Your task to perform on an android device: remove spam from my inbox in the gmail app Image 0: 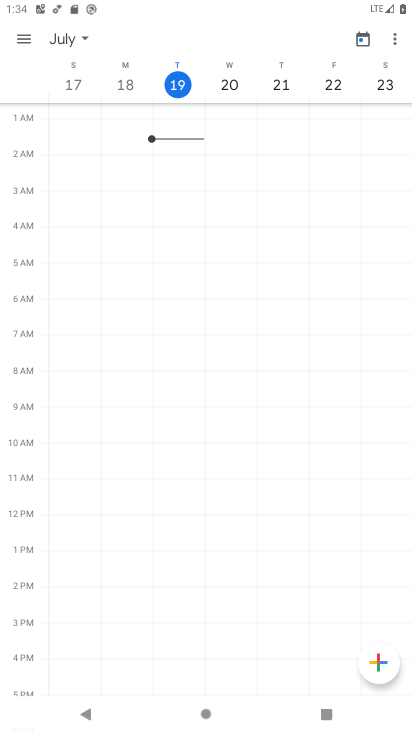
Step 0: press home button
Your task to perform on an android device: remove spam from my inbox in the gmail app Image 1: 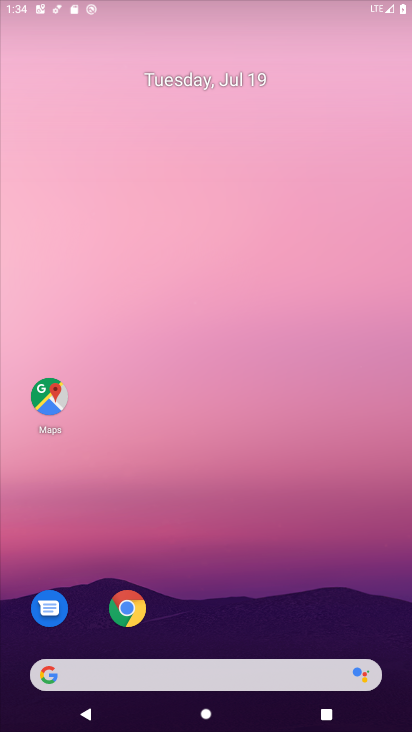
Step 1: drag from (264, 636) to (231, 103)
Your task to perform on an android device: remove spam from my inbox in the gmail app Image 2: 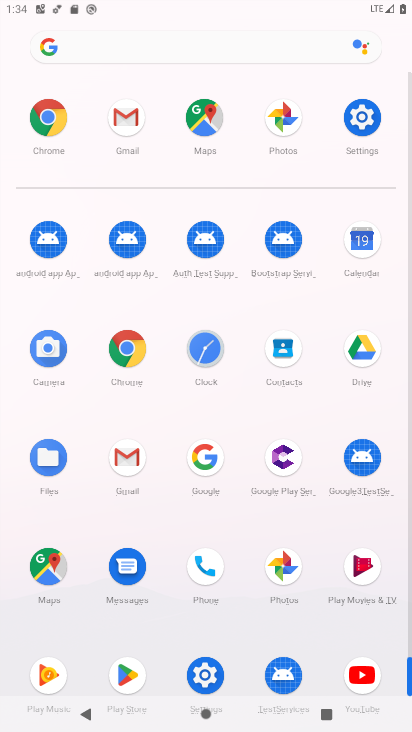
Step 2: click (130, 464)
Your task to perform on an android device: remove spam from my inbox in the gmail app Image 3: 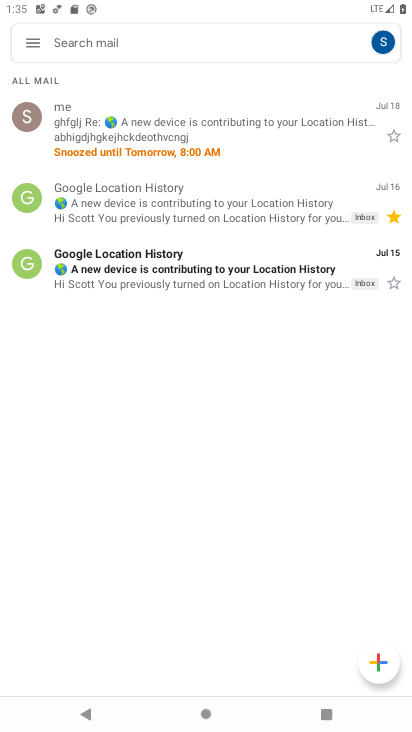
Step 3: click (37, 46)
Your task to perform on an android device: remove spam from my inbox in the gmail app Image 4: 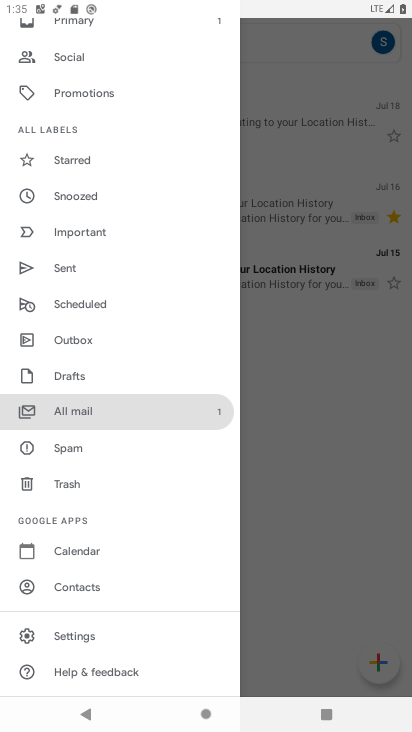
Step 4: click (85, 459)
Your task to perform on an android device: remove spam from my inbox in the gmail app Image 5: 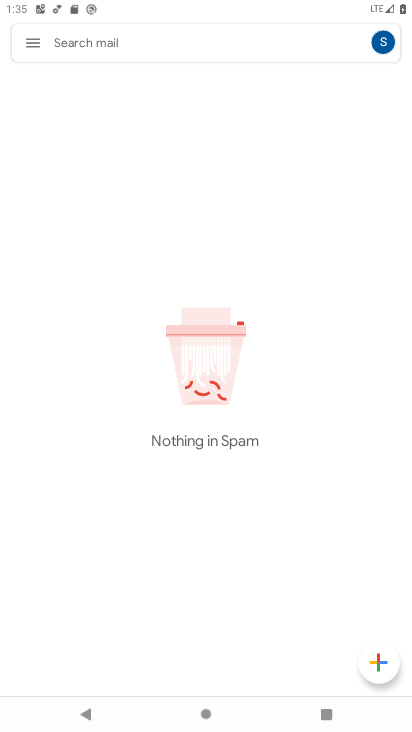
Step 5: click (29, 41)
Your task to perform on an android device: remove spam from my inbox in the gmail app Image 6: 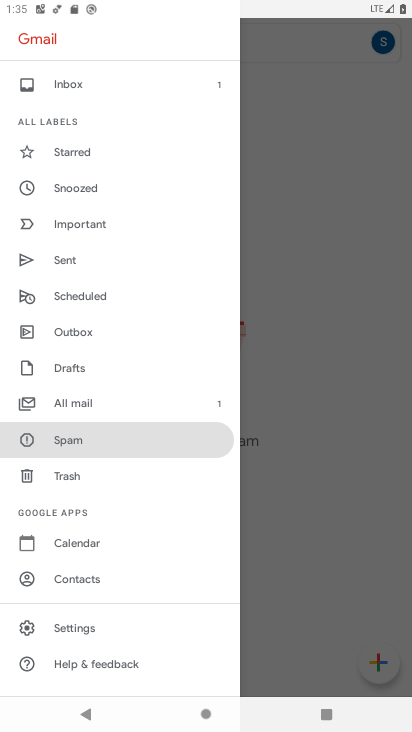
Step 6: drag from (115, 216) to (91, 458)
Your task to perform on an android device: remove spam from my inbox in the gmail app Image 7: 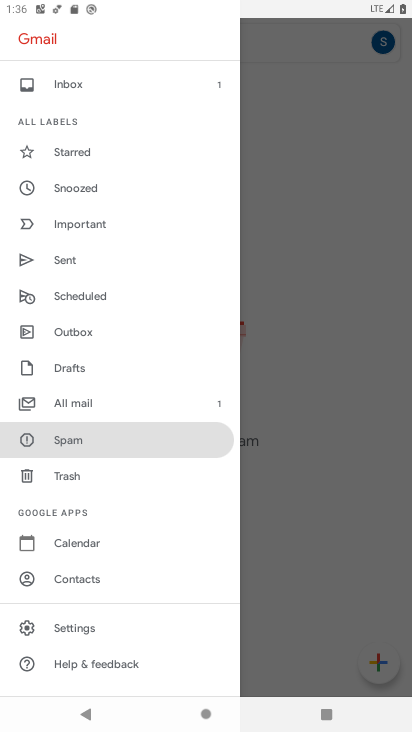
Step 7: click (93, 88)
Your task to perform on an android device: remove spam from my inbox in the gmail app Image 8: 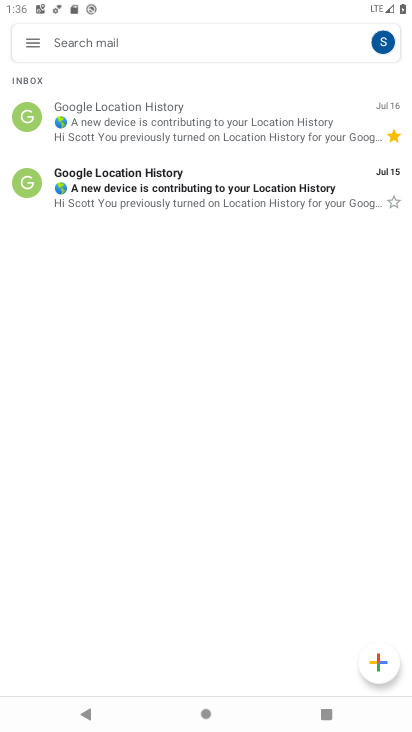
Step 8: click (33, 36)
Your task to perform on an android device: remove spam from my inbox in the gmail app Image 9: 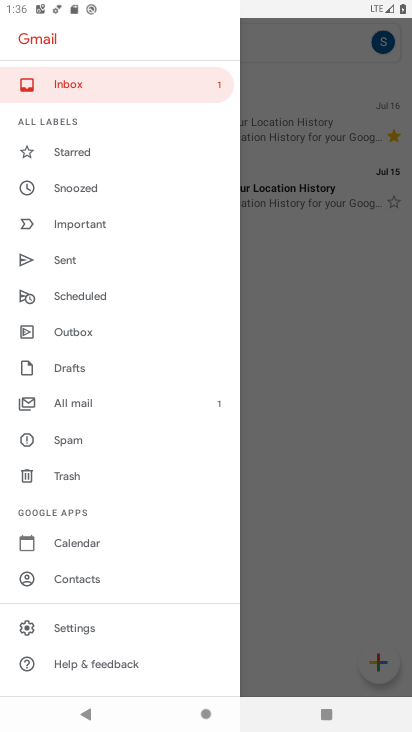
Step 9: click (85, 440)
Your task to perform on an android device: remove spam from my inbox in the gmail app Image 10: 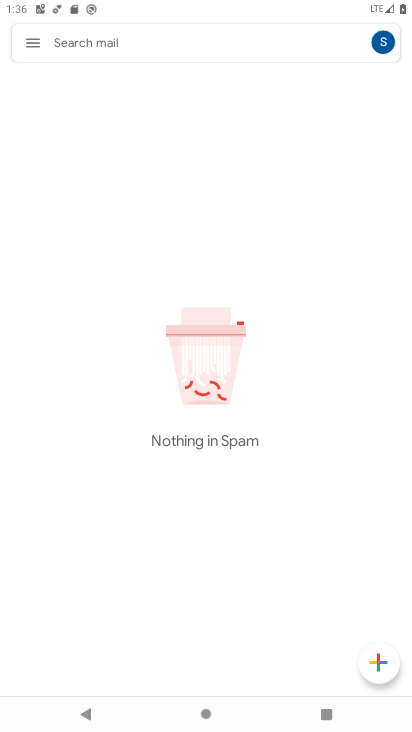
Step 10: task complete